Your task to perform on an android device: Go to Maps Image 0: 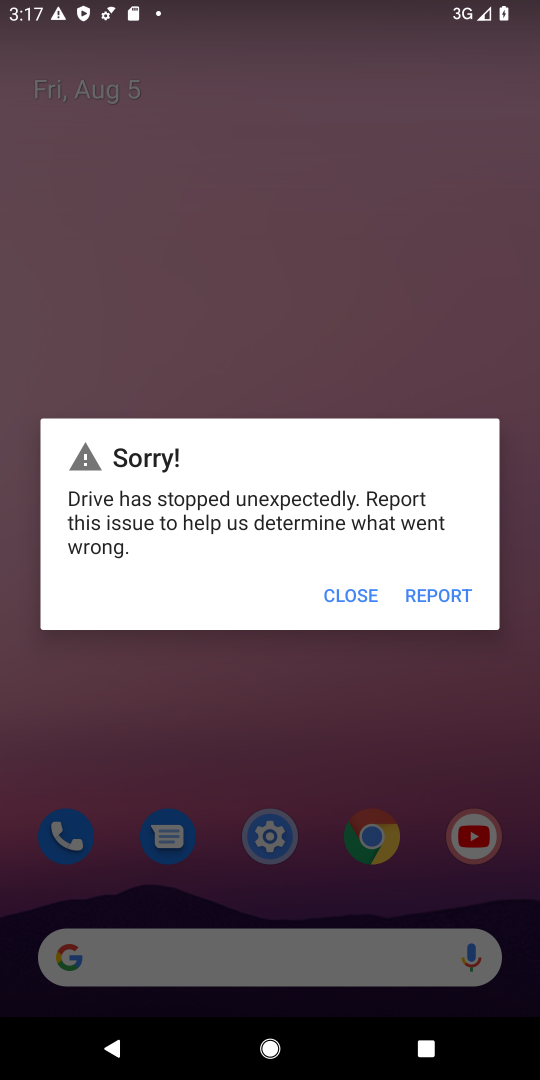
Step 0: press home button
Your task to perform on an android device: Go to Maps Image 1: 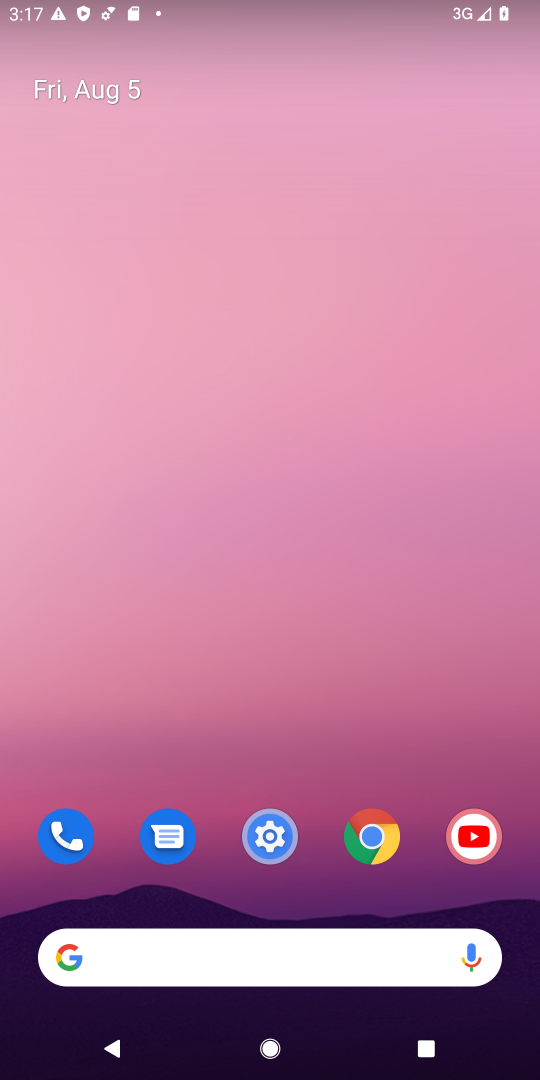
Step 1: drag from (256, 809) to (219, 21)
Your task to perform on an android device: Go to Maps Image 2: 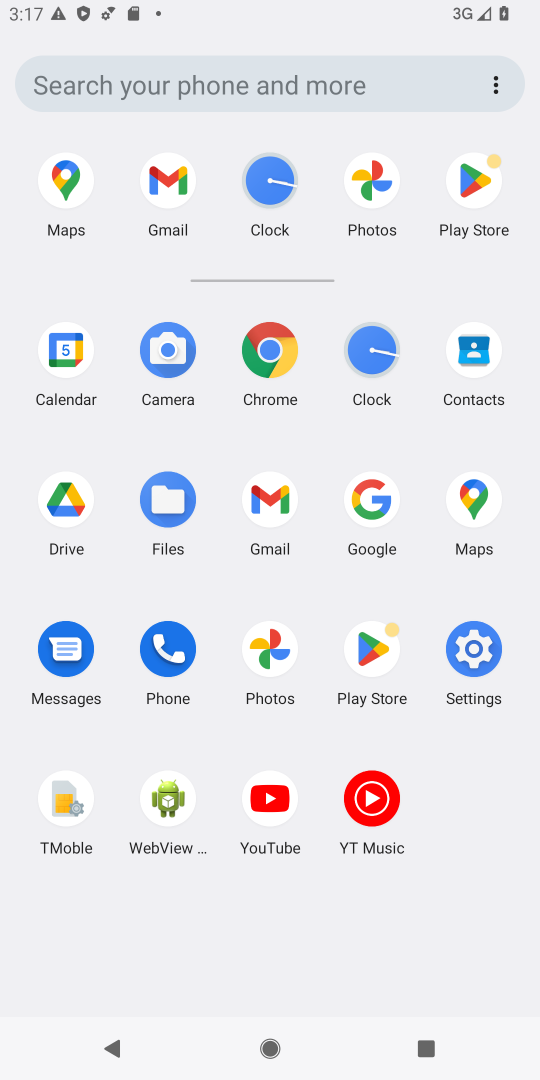
Step 2: click (59, 180)
Your task to perform on an android device: Go to Maps Image 3: 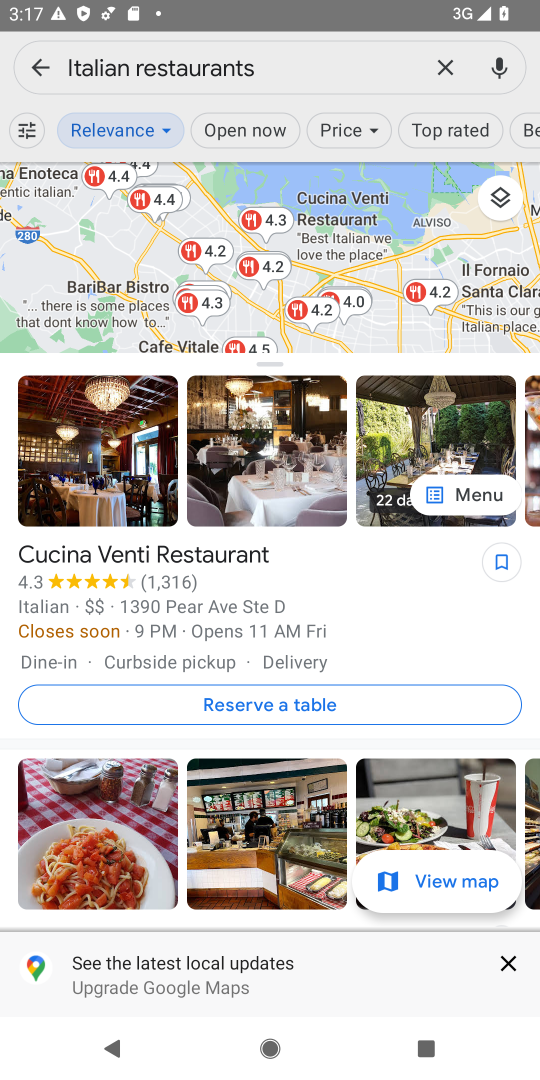
Step 3: task complete